Your task to perform on an android device: choose inbox layout in the gmail app Image 0: 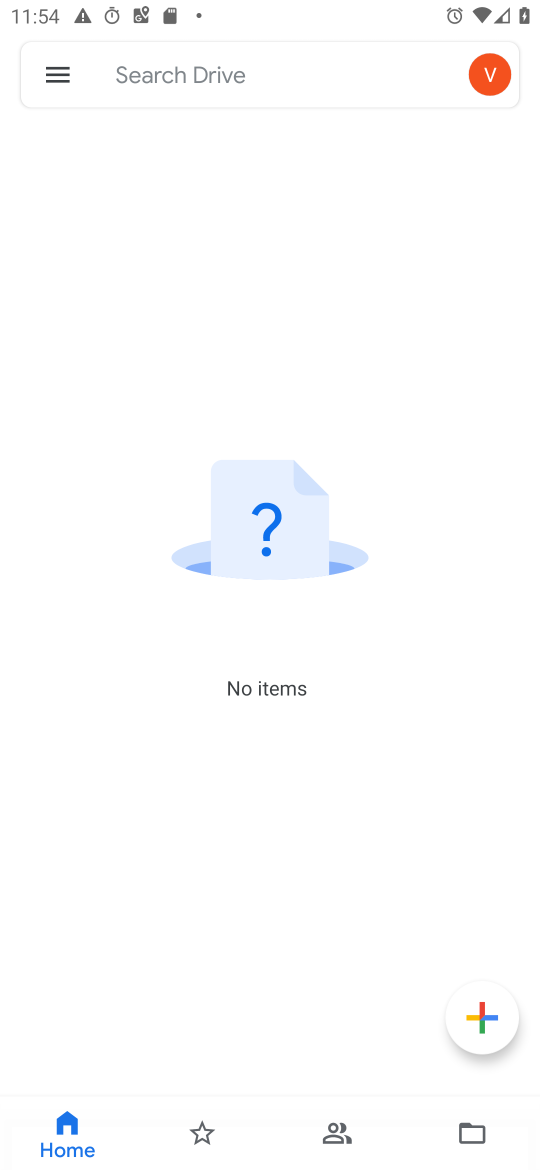
Step 0: press home button
Your task to perform on an android device: choose inbox layout in the gmail app Image 1: 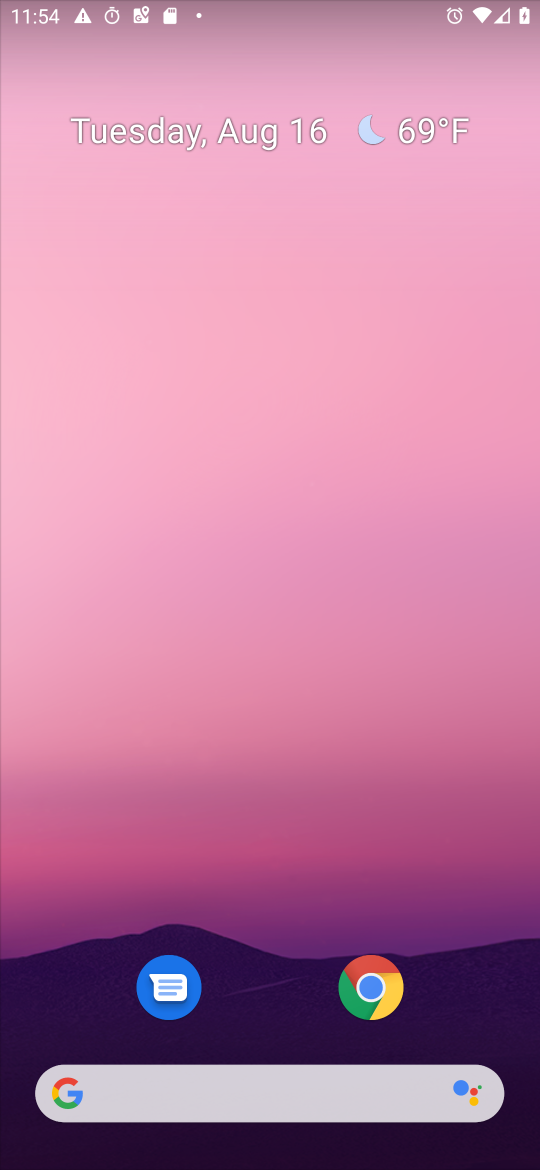
Step 1: drag from (33, 1140) to (321, 385)
Your task to perform on an android device: choose inbox layout in the gmail app Image 2: 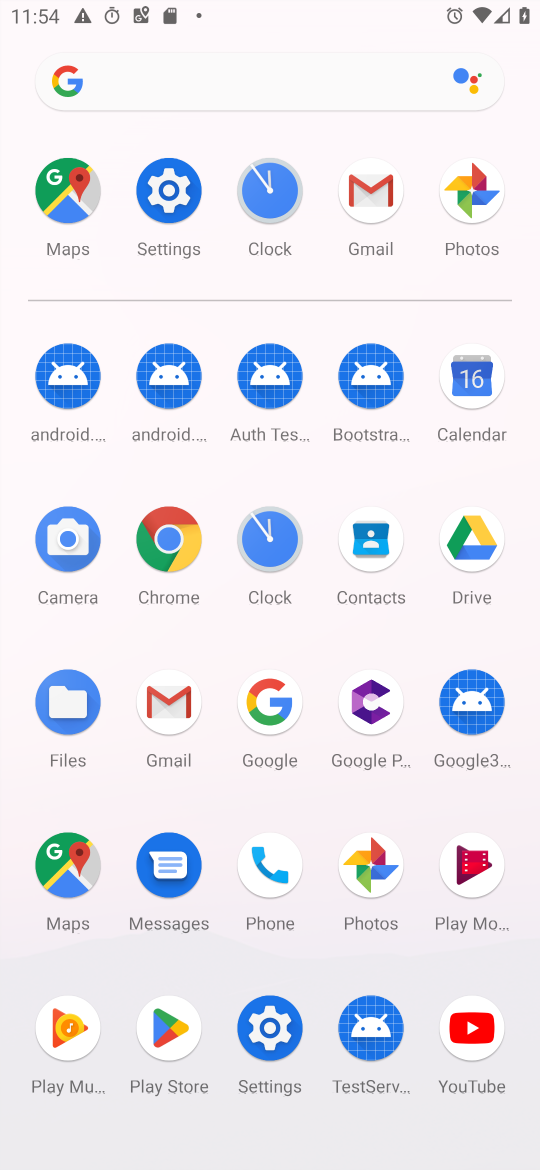
Step 2: click (163, 711)
Your task to perform on an android device: choose inbox layout in the gmail app Image 3: 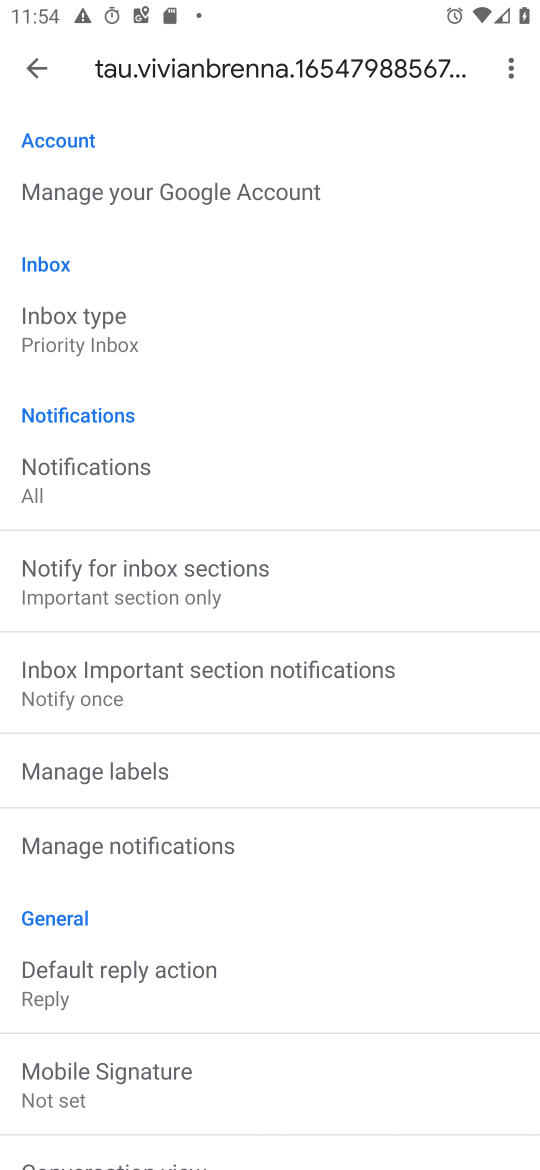
Step 3: click (102, 321)
Your task to perform on an android device: choose inbox layout in the gmail app Image 4: 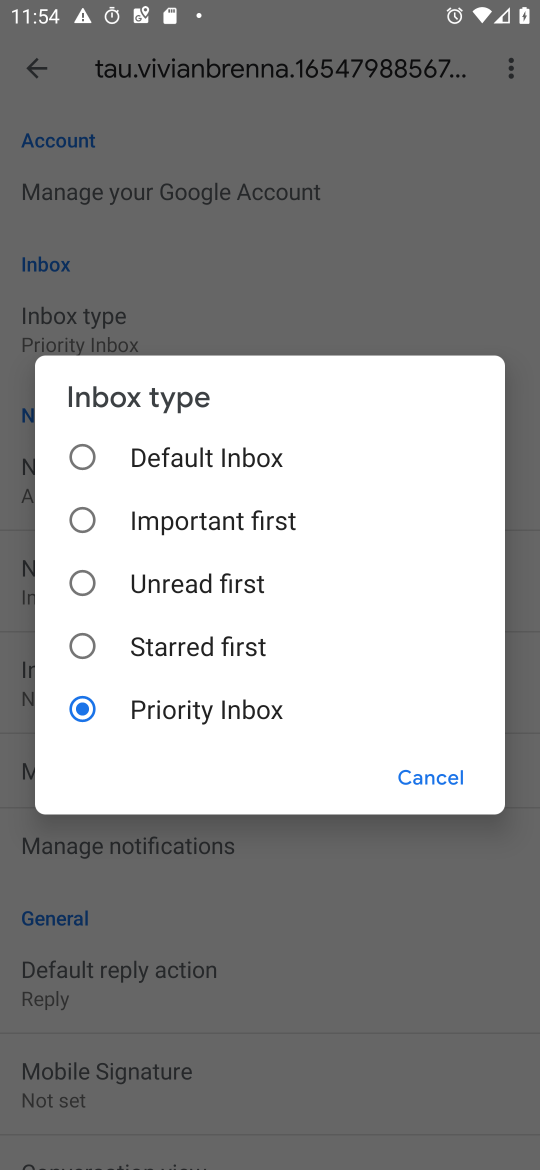
Step 4: click (424, 782)
Your task to perform on an android device: choose inbox layout in the gmail app Image 5: 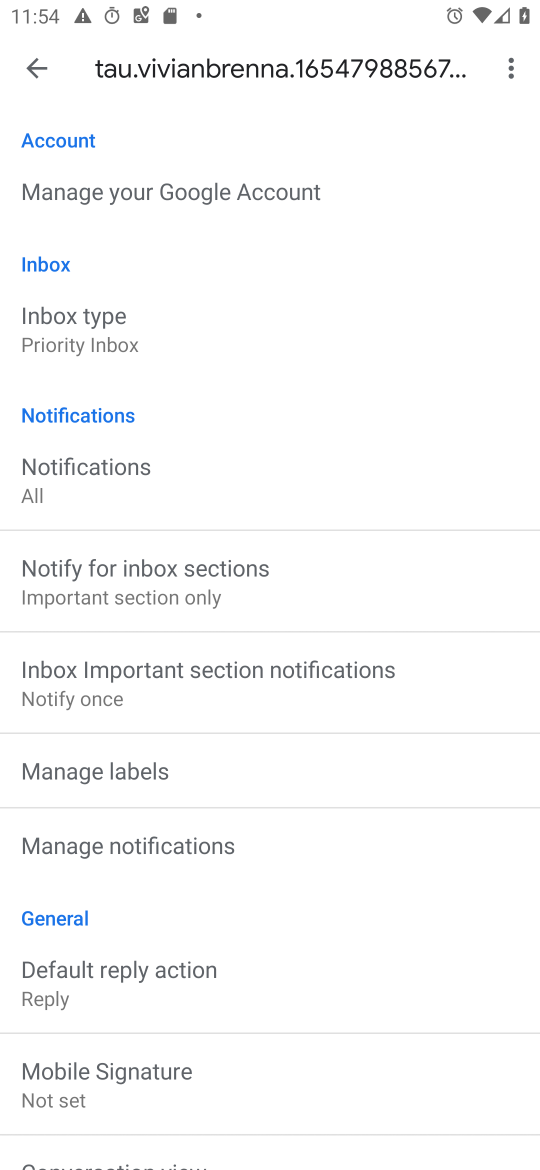
Step 5: task complete